Your task to perform on an android device: open the mobile data screen to see how much data has been used Image 0: 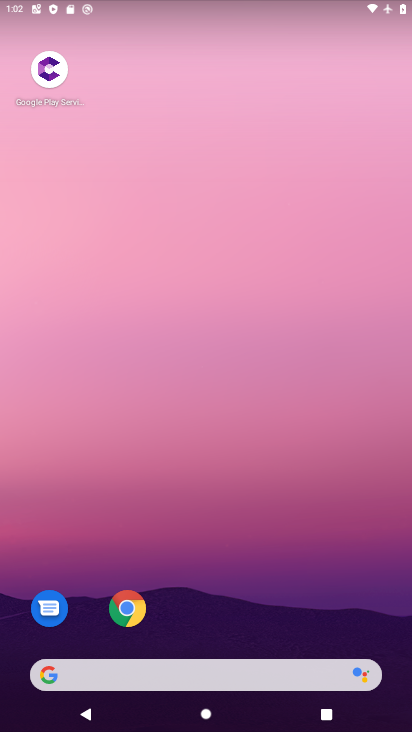
Step 0: drag from (206, 514) to (183, 139)
Your task to perform on an android device: open the mobile data screen to see how much data has been used Image 1: 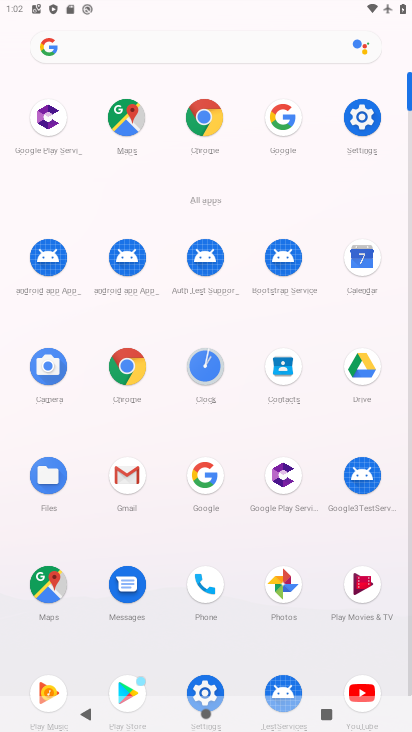
Step 1: click (361, 123)
Your task to perform on an android device: open the mobile data screen to see how much data has been used Image 2: 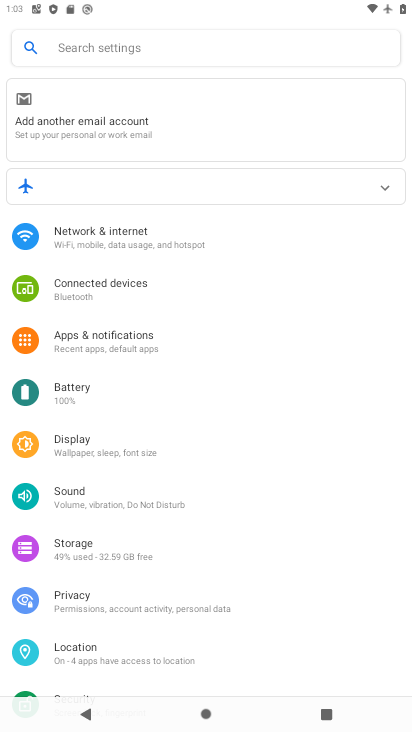
Step 2: click (120, 256)
Your task to perform on an android device: open the mobile data screen to see how much data has been used Image 3: 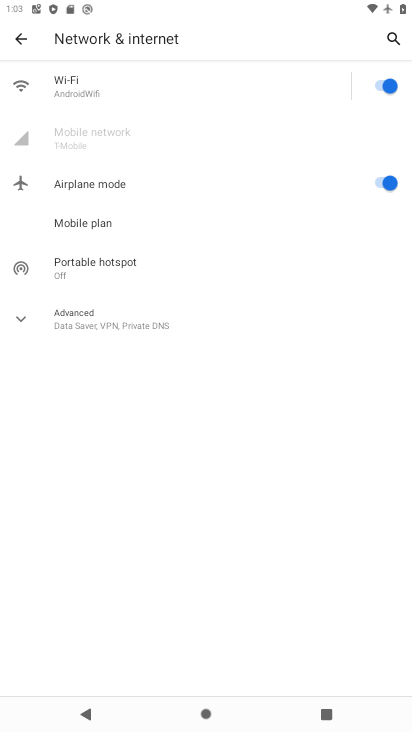
Step 3: click (70, 125)
Your task to perform on an android device: open the mobile data screen to see how much data has been used Image 4: 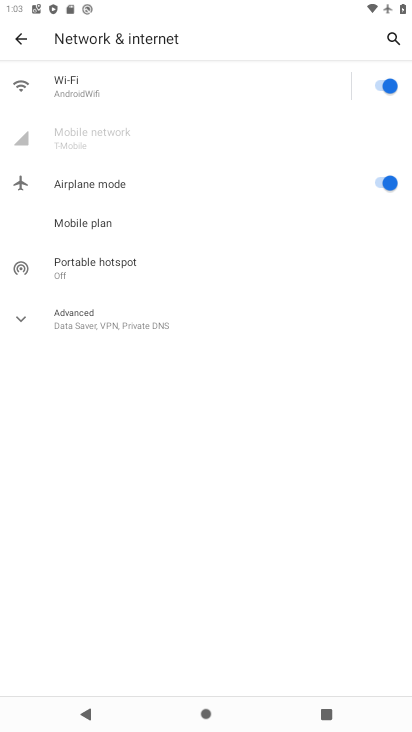
Step 4: click (394, 182)
Your task to perform on an android device: open the mobile data screen to see how much data has been used Image 5: 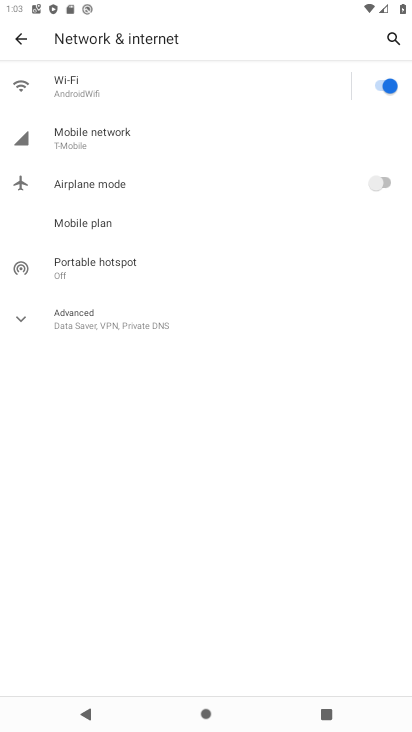
Step 5: click (118, 141)
Your task to perform on an android device: open the mobile data screen to see how much data has been used Image 6: 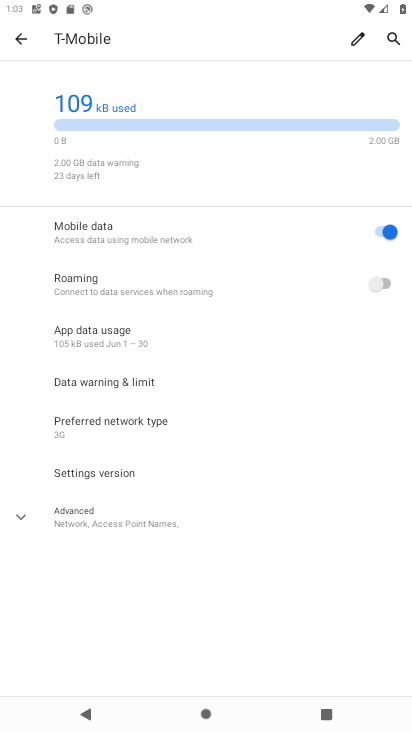
Step 6: task complete